Your task to perform on an android device: turn off notifications in google photos Image 0: 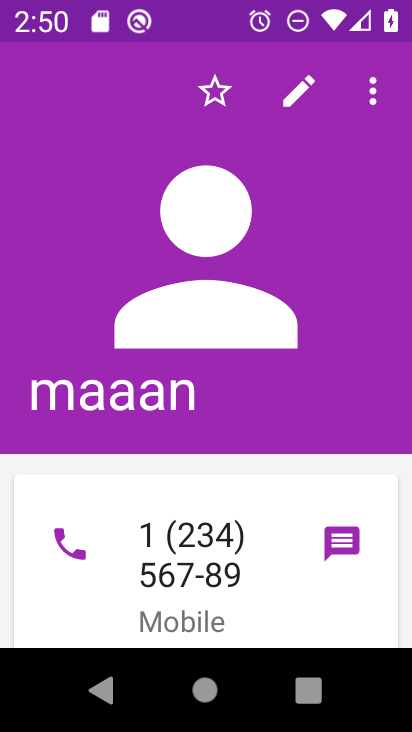
Step 0: press home button
Your task to perform on an android device: turn off notifications in google photos Image 1: 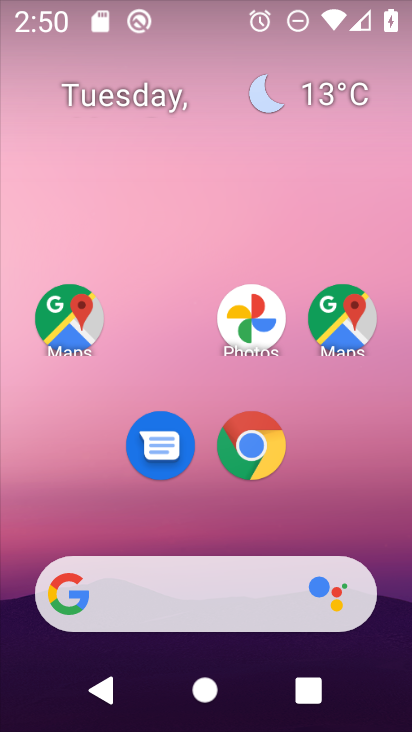
Step 1: drag from (384, 542) to (388, 252)
Your task to perform on an android device: turn off notifications in google photos Image 2: 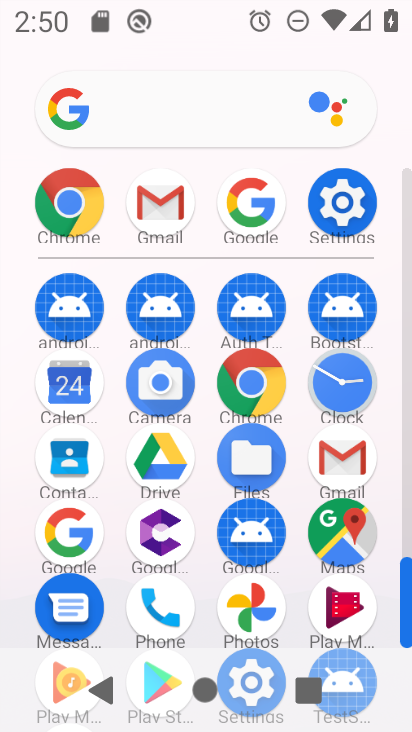
Step 2: click (267, 624)
Your task to perform on an android device: turn off notifications in google photos Image 3: 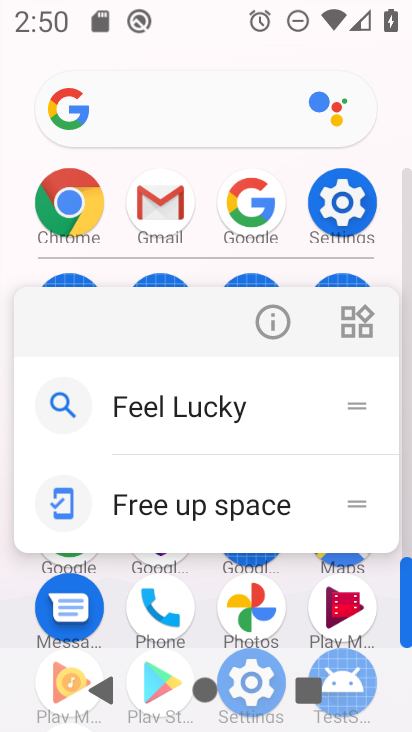
Step 3: click (267, 624)
Your task to perform on an android device: turn off notifications in google photos Image 4: 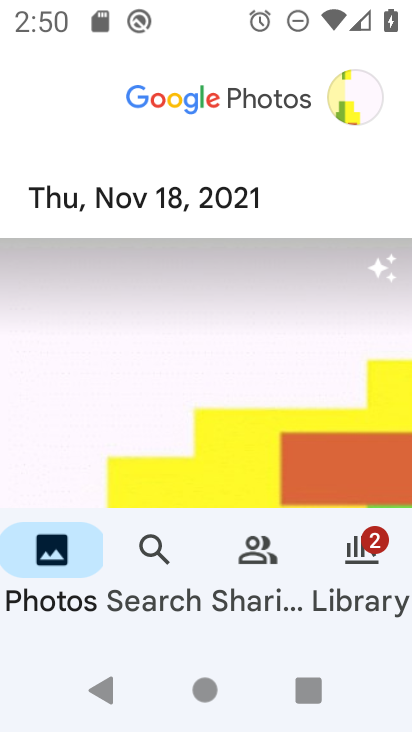
Step 4: click (346, 123)
Your task to perform on an android device: turn off notifications in google photos Image 5: 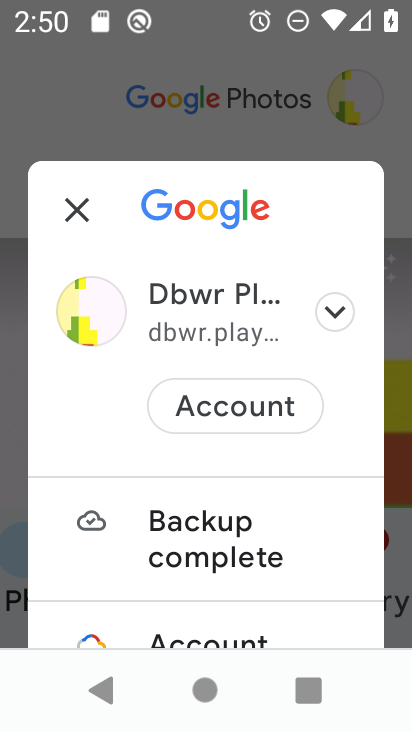
Step 5: drag from (311, 525) to (319, 460)
Your task to perform on an android device: turn off notifications in google photos Image 6: 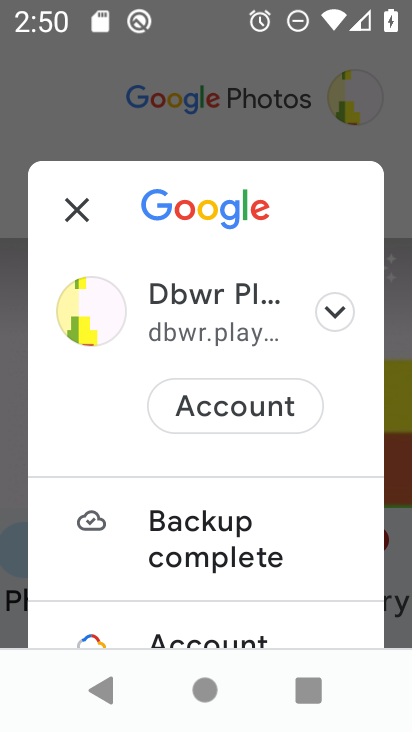
Step 6: drag from (332, 572) to (338, 494)
Your task to perform on an android device: turn off notifications in google photos Image 7: 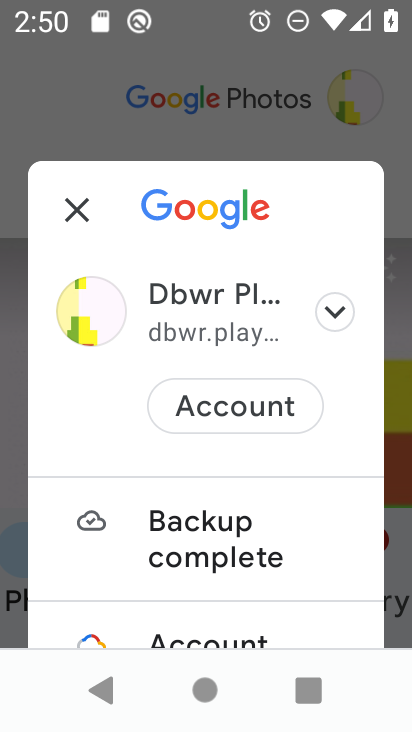
Step 7: drag from (325, 569) to (354, 249)
Your task to perform on an android device: turn off notifications in google photos Image 8: 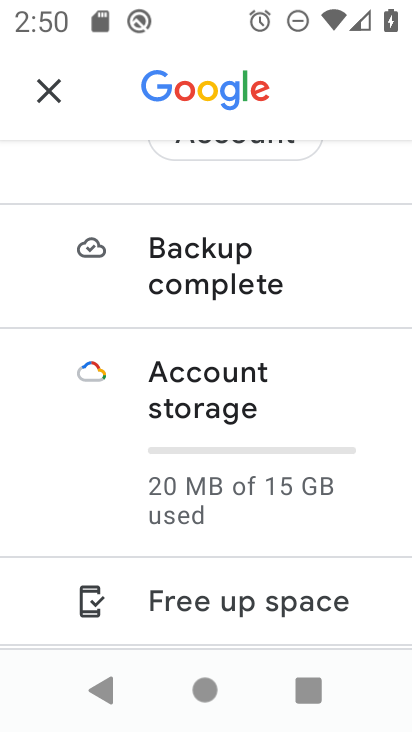
Step 8: drag from (358, 526) to (370, 339)
Your task to perform on an android device: turn off notifications in google photos Image 9: 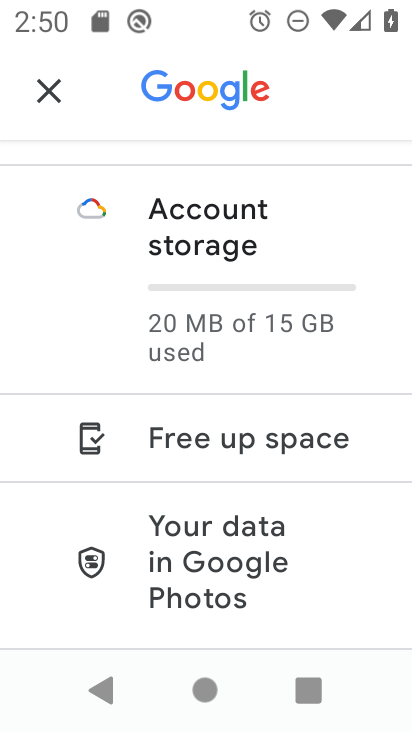
Step 9: drag from (344, 574) to (357, 373)
Your task to perform on an android device: turn off notifications in google photos Image 10: 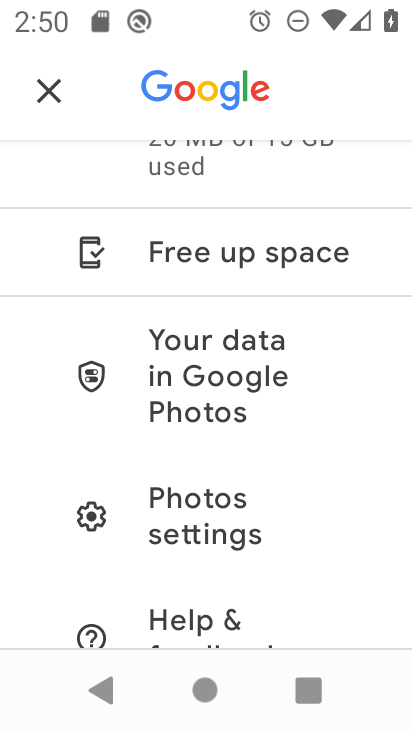
Step 10: click (223, 511)
Your task to perform on an android device: turn off notifications in google photos Image 11: 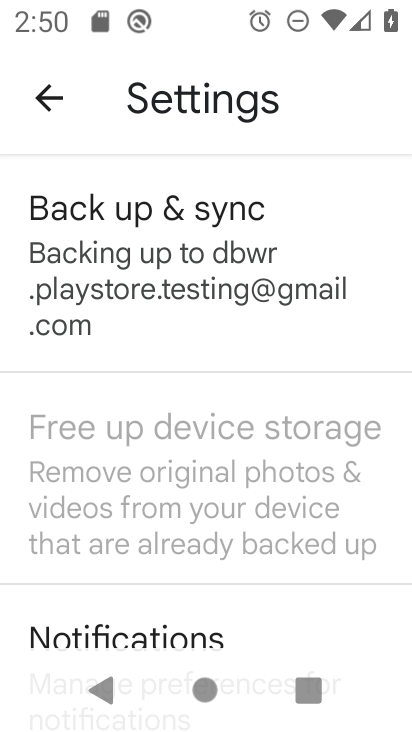
Step 11: drag from (292, 548) to (306, 349)
Your task to perform on an android device: turn off notifications in google photos Image 12: 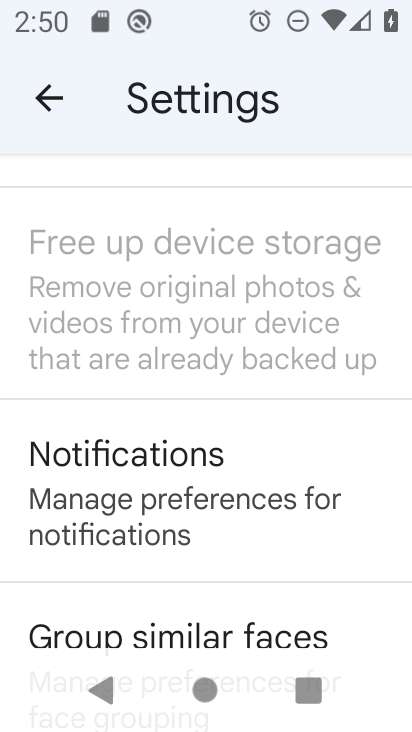
Step 12: click (278, 489)
Your task to perform on an android device: turn off notifications in google photos Image 13: 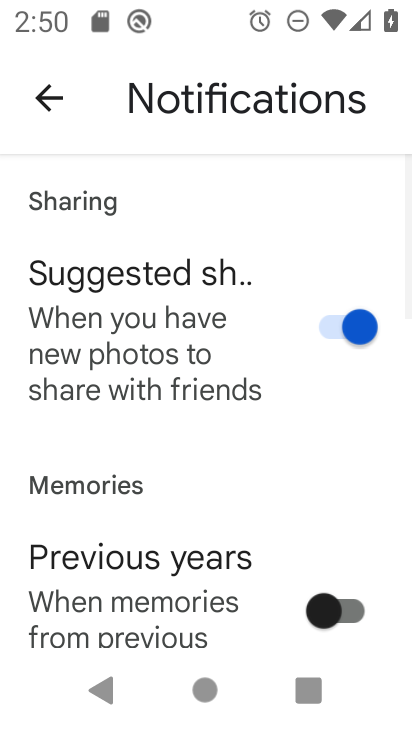
Step 13: drag from (280, 485) to (286, 407)
Your task to perform on an android device: turn off notifications in google photos Image 14: 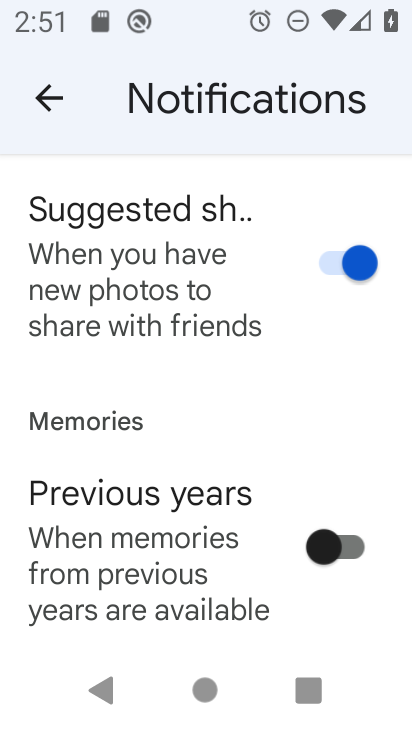
Step 14: drag from (280, 497) to (287, 435)
Your task to perform on an android device: turn off notifications in google photos Image 15: 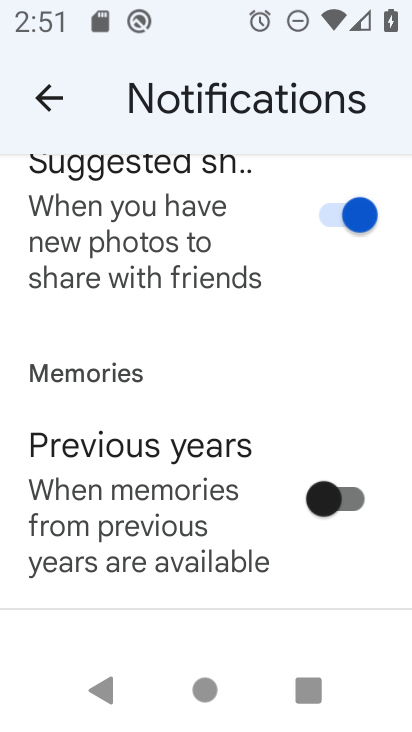
Step 15: drag from (288, 550) to (290, 447)
Your task to perform on an android device: turn off notifications in google photos Image 16: 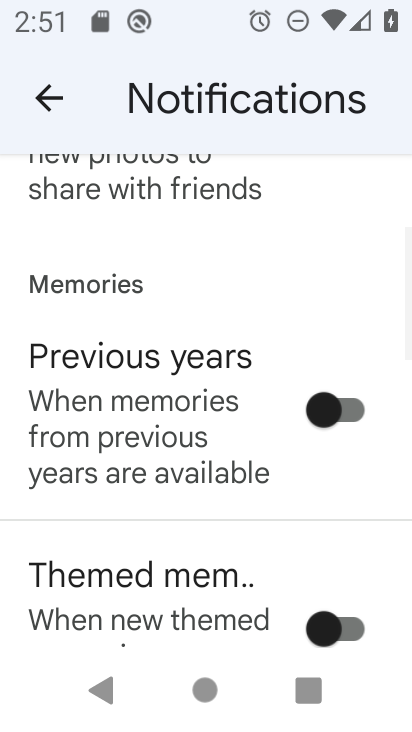
Step 16: drag from (290, 561) to (290, 479)
Your task to perform on an android device: turn off notifications in google photos Image 17: 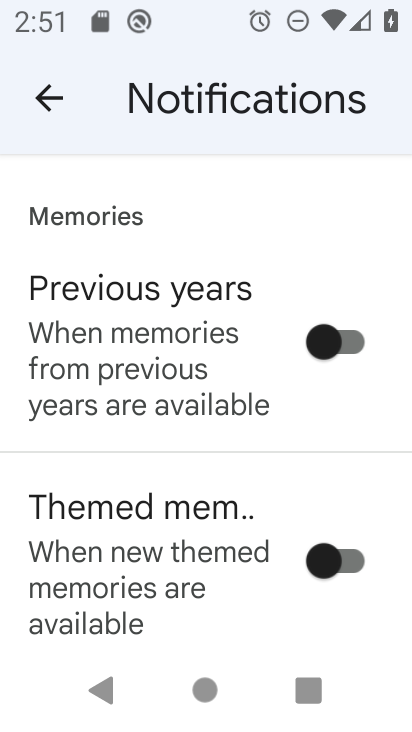
Step 17: drag from (271, 597) to (279, 487)
Your task to perform on an android device: turn off notifications in google photos Image 18: 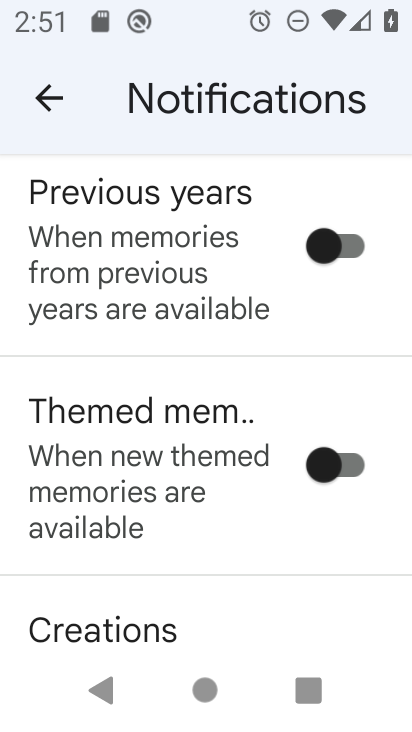
Step 18: drag from (275, 568) to (276, 483)
Your task to perform on an android device: turn off notifications in google photos Image 19: 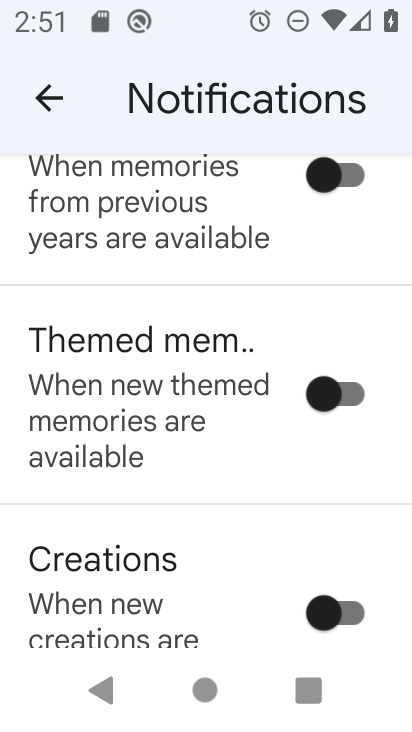
Step 19: drag from (262, 579) to (264, 499)
Your task to perform on an android device: turn off notifications in google photos Image 20: 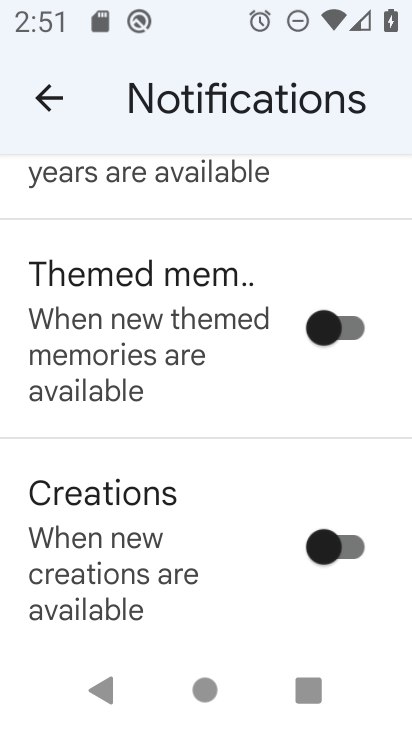
Step 20: drag from (268, 544) to (265, 468)
Your task to perform on an android device: turn off notifications in google photos Image 21: 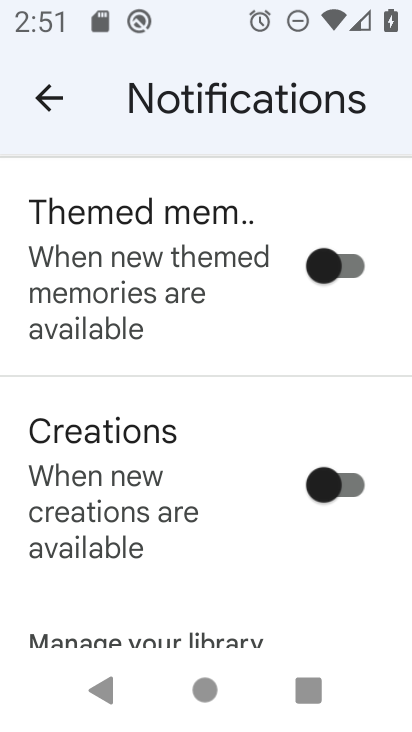
Step 21: drag from (268, 514) to (268, 447)
Your task to perform on an android device: turn off notifications in google photos Image 22: 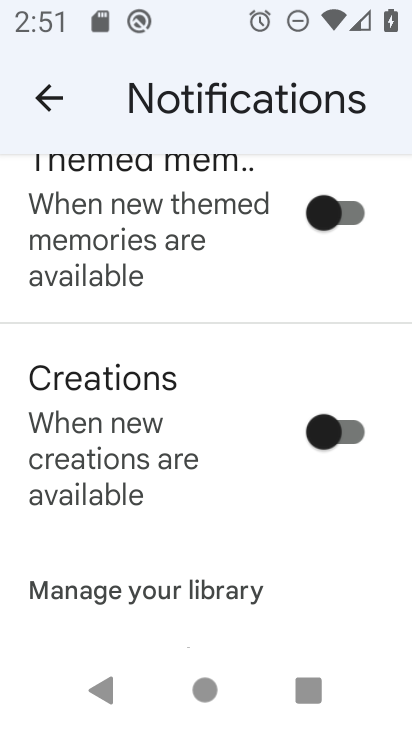
Step 22: drag from (277, 548) to (278, 464)
Your task to perform on an android device: turn off notifications in google photos Image 23: 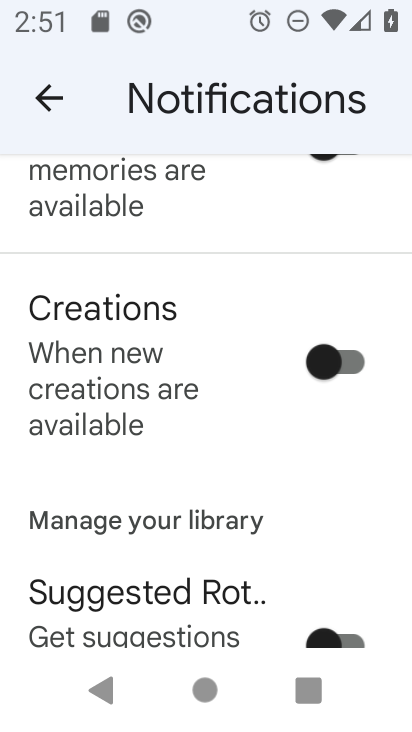
Step 23: drag from (294, 553) to (292, 454)
Your task to perform on an android device: turn off notifications in google photos Image 24: 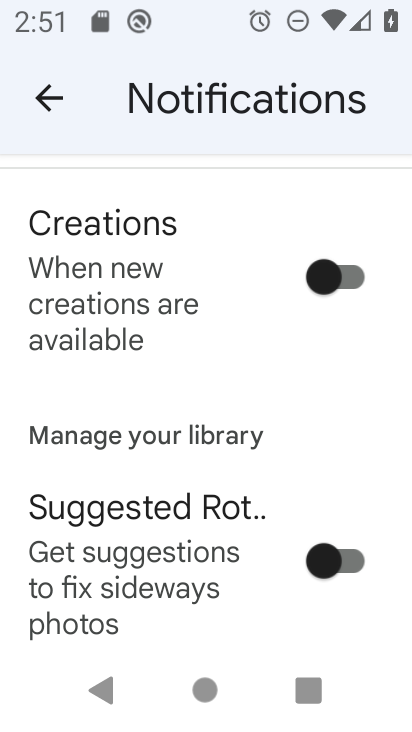
Step 24: drag from (294, 554) to (292, 479)
Your task to perform on an android device: turn off notifications in google photos Image 25: 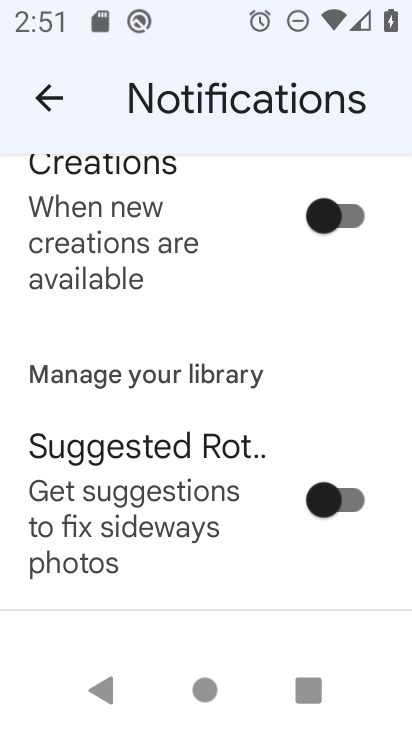
Step 25: drag from (292, 561) to (293, 479)
Your task to perform on an android device: turn off notifications in google photos Image 26: 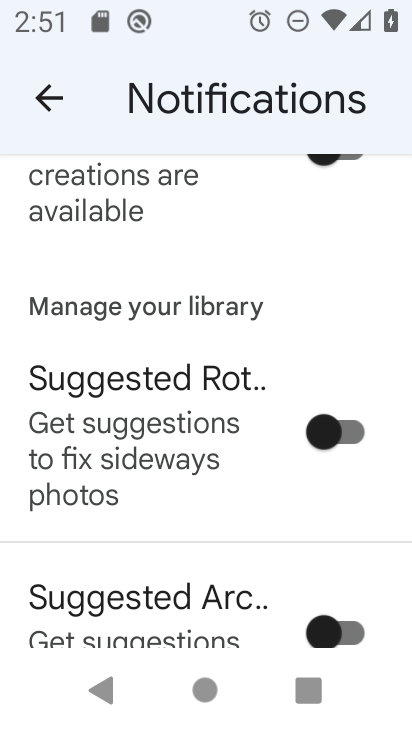
Step 26: drag from (296, 563) to (290, 474)
Your task to perform on an android device: turn off notifications in google photos Image 27: 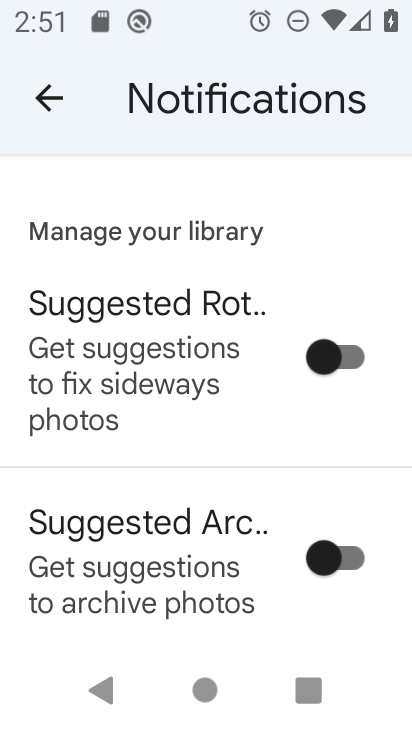
Step 27: drag from (282, 577) to (279, 493)
Your task to perform on an android device: turn off notifications in google photos Image 28: 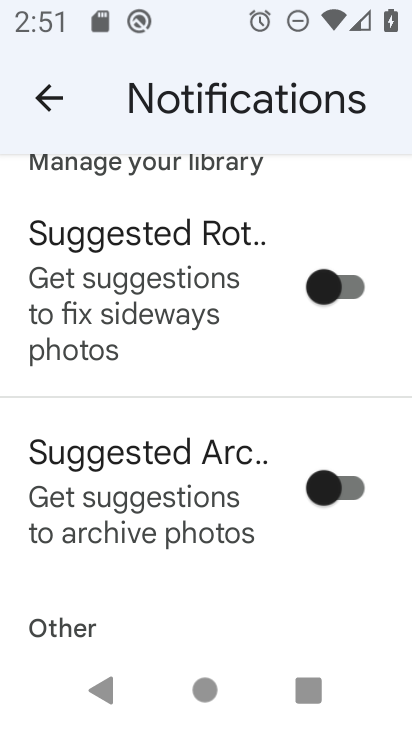
Step 28: drag from (289, 574) to (282, 503)
Your task to perform on an android device: turn off notifications in google photos Image 29: 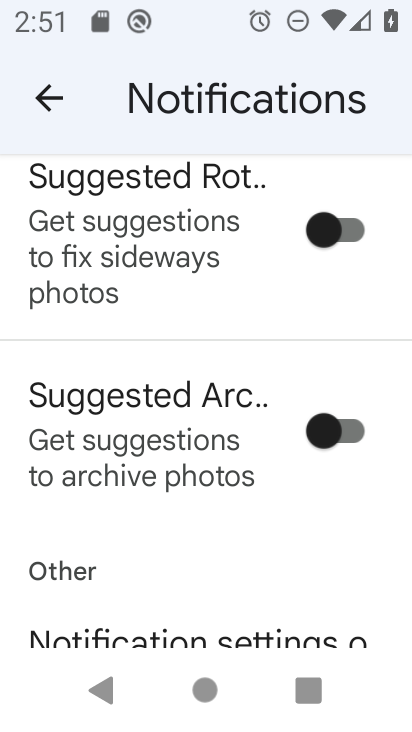
Step 29: drag from (280, 584) to (269, 398)
Your task to perform on an android device: turn off notifications in google photos Image 30: 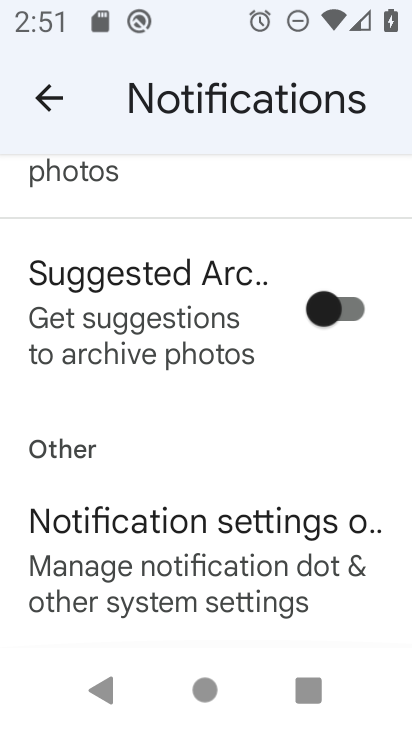
Step 30: click (262, 548)
Your task to perform on an android device: turn off notifications in google photos Image 31: 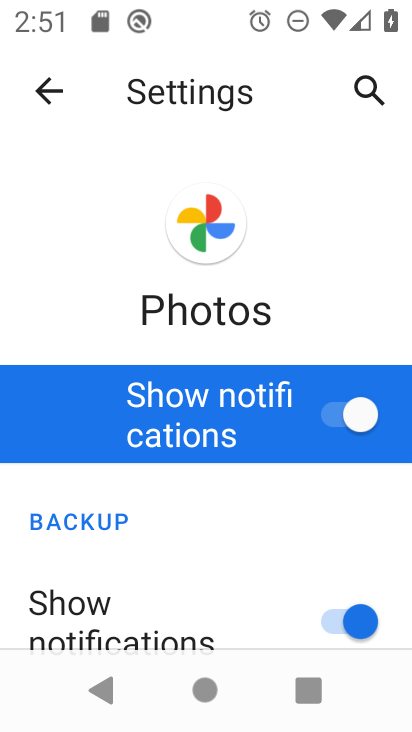
Step 31: click (358, 425)
Your task to perform on an android device: turn off notifications in google photos Image 32: 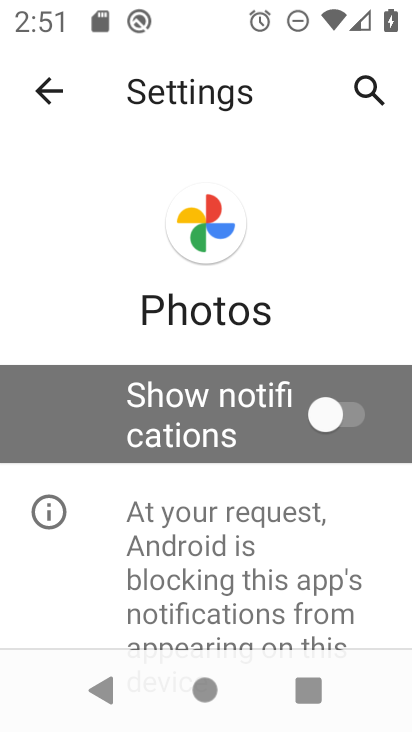
Step 32: task complete